Your task to perform on an android device: check storage Image 0: 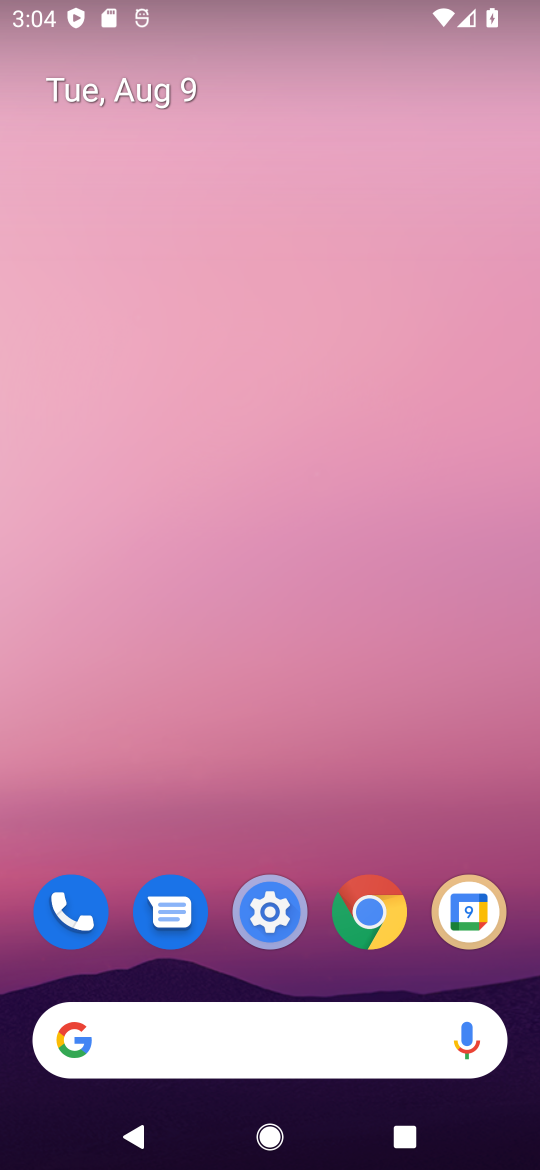
Step 0: click (268, 913)
Your task to perform on an android device: check storage Image 1: 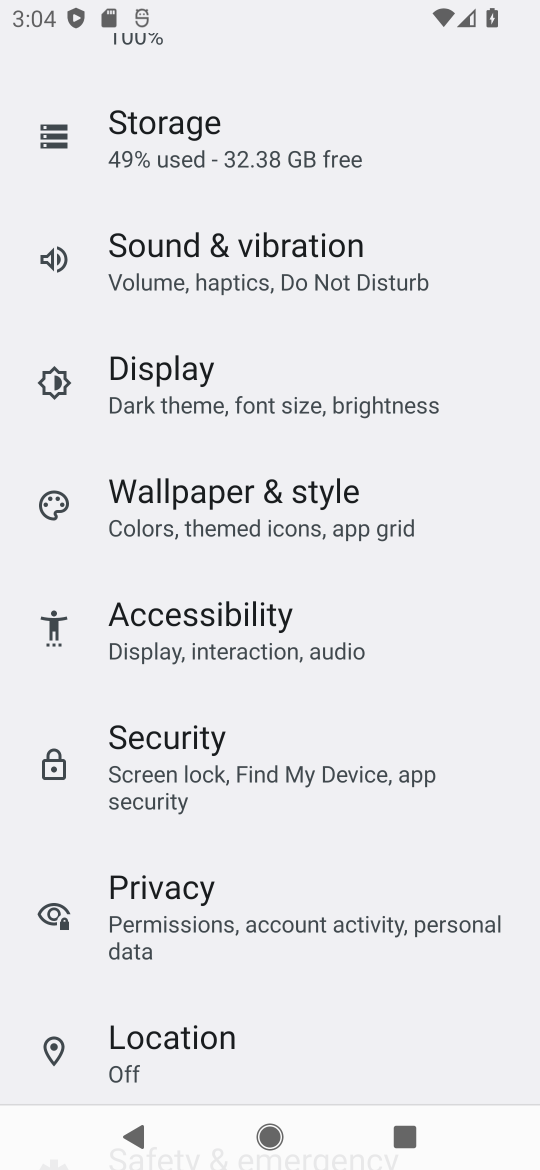
Step 1: drag from (360, 857) to (340, 366)
Your task to perform on an android device: check storage Image 2: 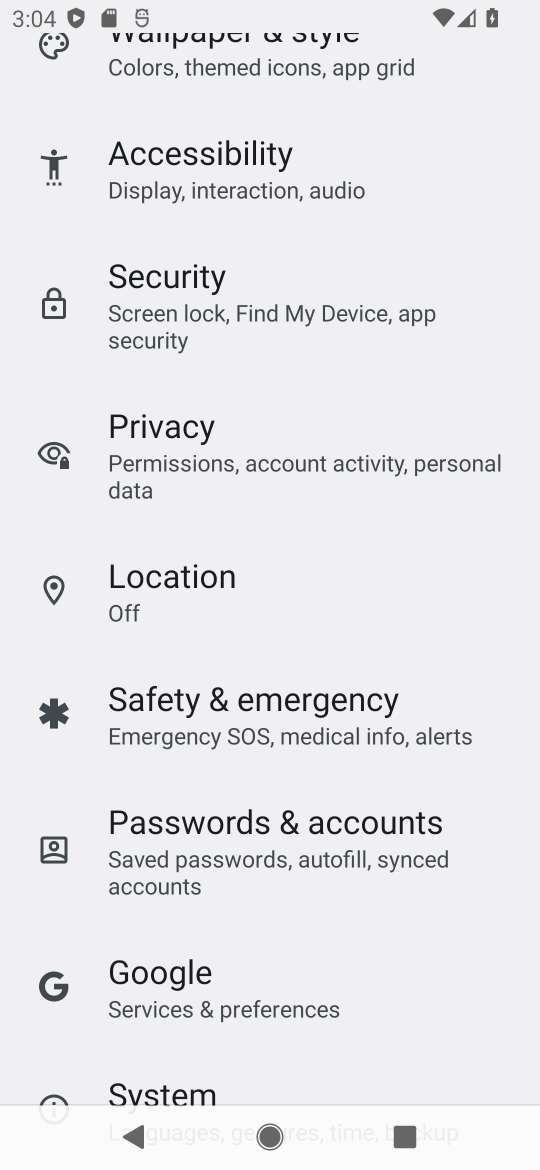
Step 2: drag from (334, 233) to (298, 919)
Your task to perform on an android device: check storage Image 3: 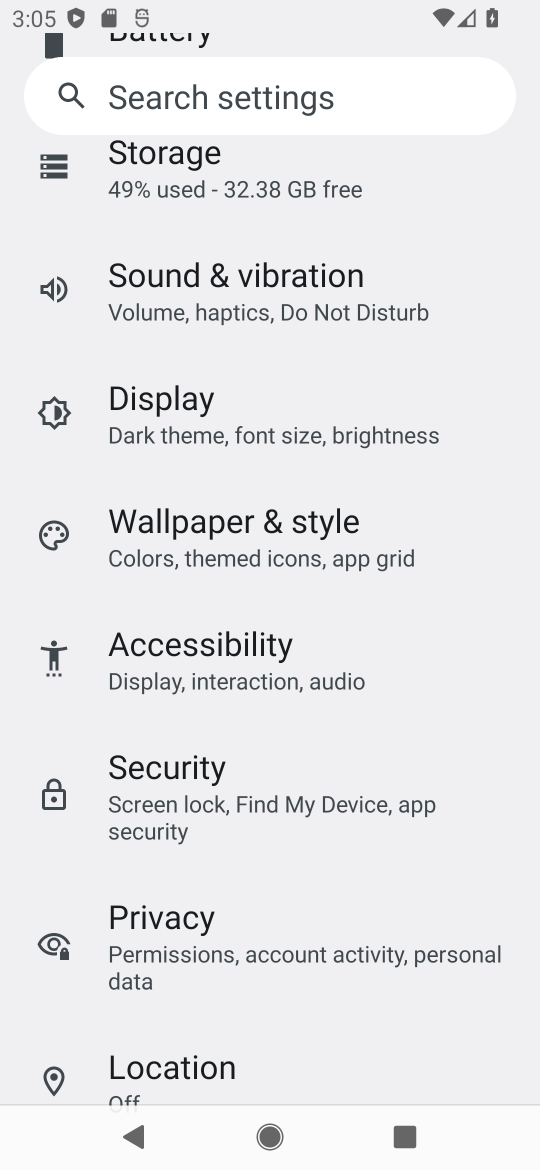
Step 3: click (164, 153)
Your task to perform on an android device: check storage Image 4: 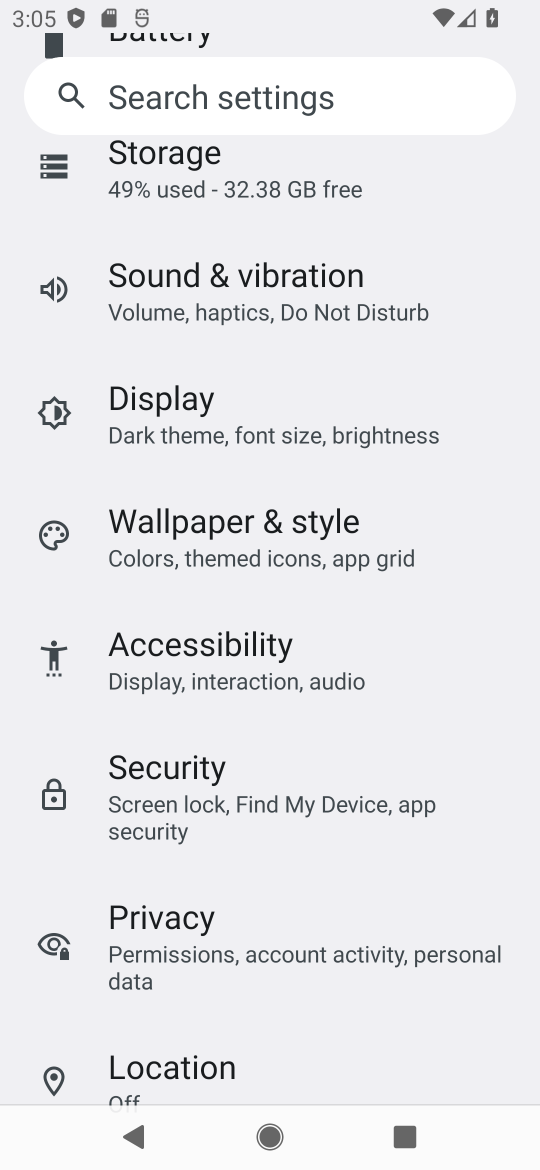
Step 4: click (175, 154)
Your task to perform on an android device: check storage Image 5: 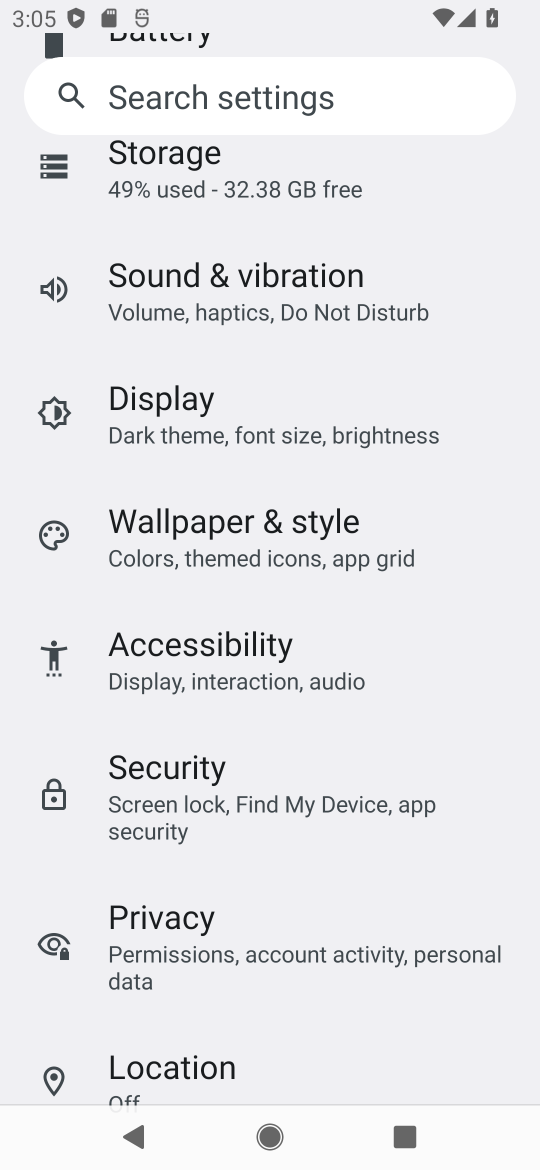
Step 5: click (137, 170)
Your task to perform on an android device: check storage Image 6: 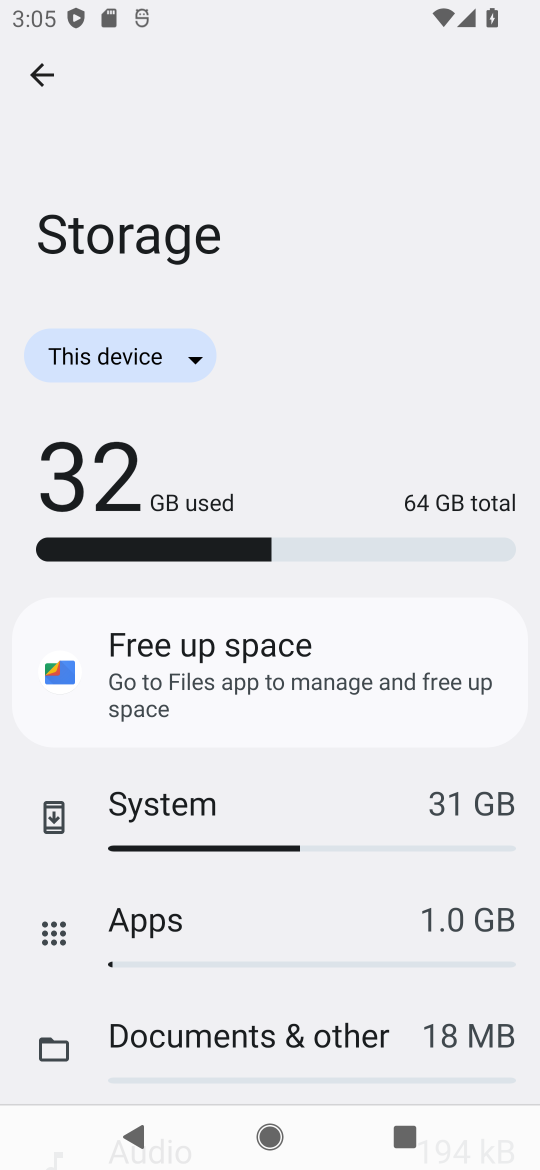
Step 6: task complete